Your task to perform on an android device: Go to wifi settings Image 0: 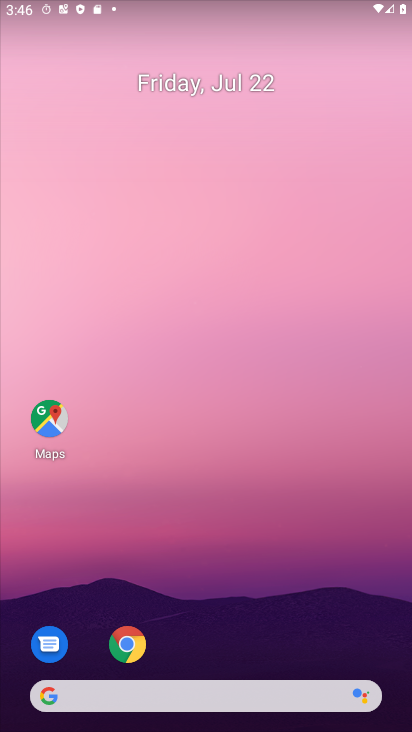
Step 0: press home button
Your task to perform on an android device: Go to wifi settings Image 1: 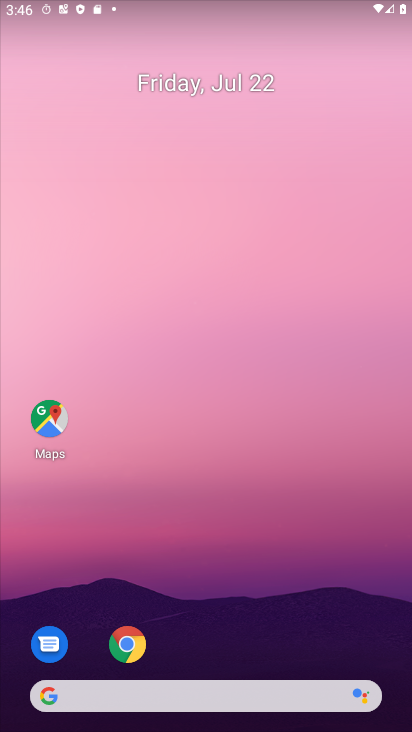
Step 1: drag from (193, 671) to (218, 68)
Your task to perform on an android device: Go to wifi settings Image 2: 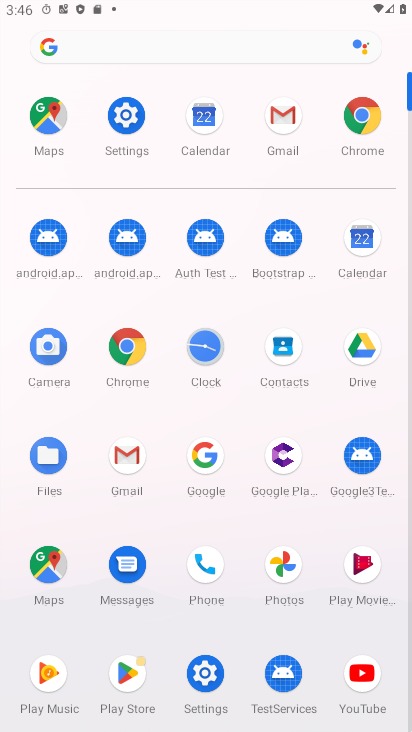
Step 2: click (137, 112)
Your task to perform on an android device: Go to wifi settings Image 3: 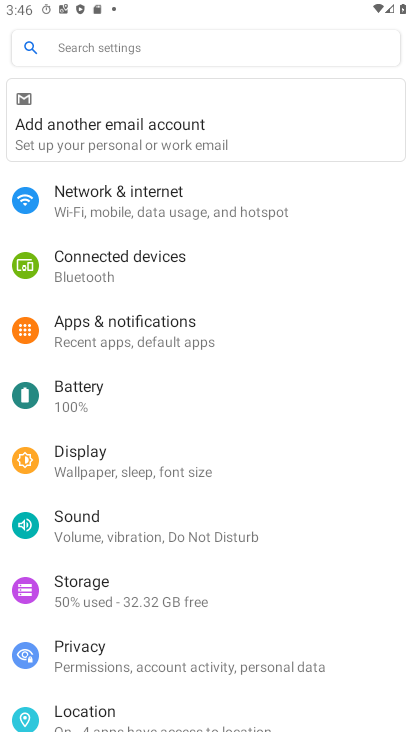
Step 3: click (98, 207)
Your task to perform on an android device: Go to wifi settings Image 4: 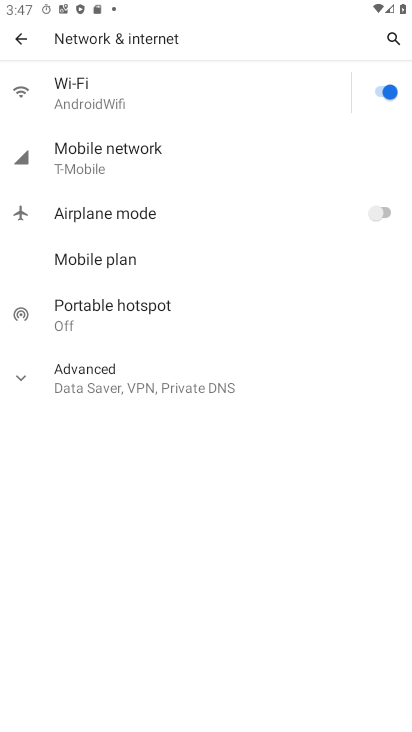
Step 4: click (75, 87)
Your task to perform on an android device: Go to wifi settings Image 5: 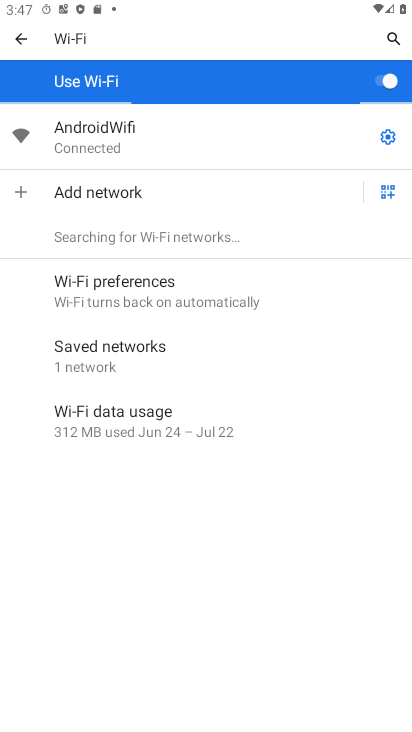
Step 5: task complete